Your task to perform on an android device: Search for Mexican restaurants on Maps Image 0: 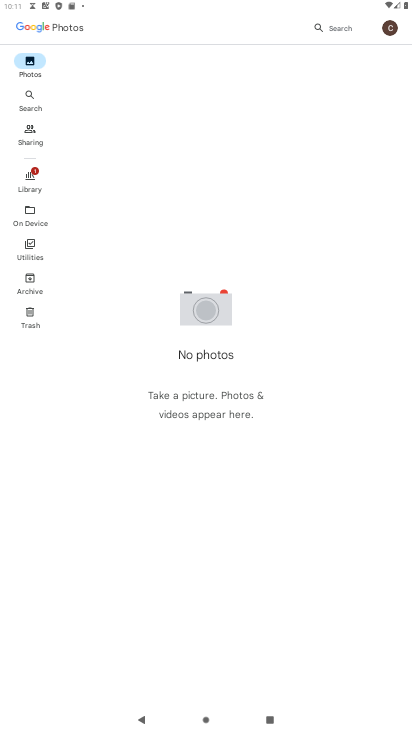
Step 0: press home button
Your task to perform on an android device: Search for Mexican restaurants on Maps Image 1: 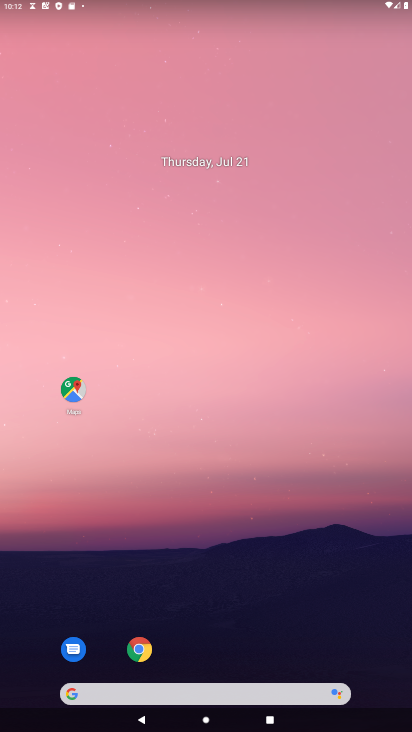
Step 1: click (79, 401)
Your task to perform on an android device: Search for Mexican restaurants on Maps Image 2: 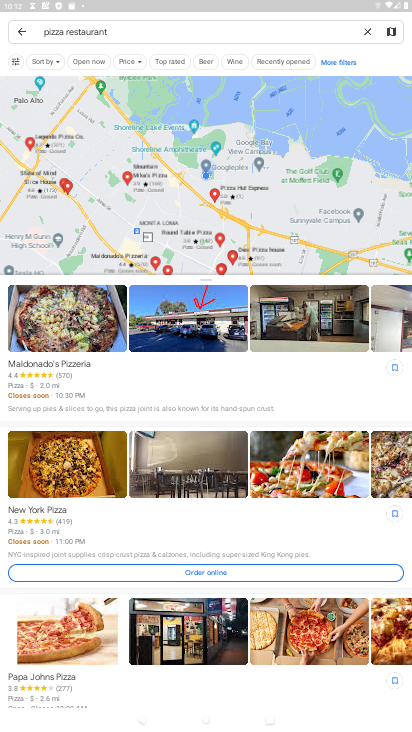
Step 2: click (229, 32)
Your task to perform on an android device: Search for Mexican restaurants on Maps Image 3: 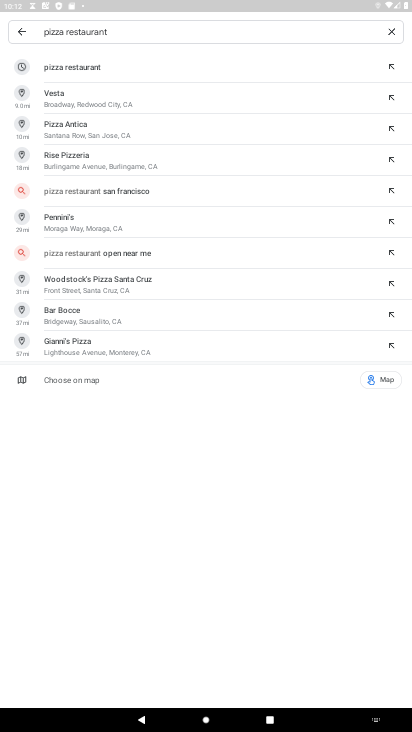
Step 3: click (395, 29)
Your task to perform on an android device: Search for Mexican restaurants on Maps Image 4: 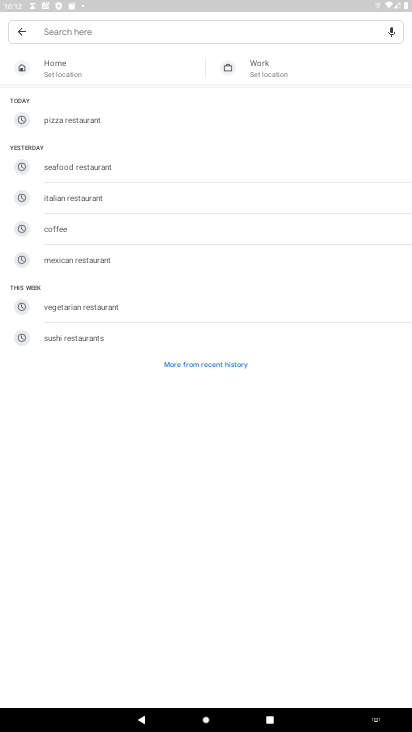
Step 4: click (114, 262)
Your task to perform on an android device: Search for Mexican restaurants on Maps Image 5: 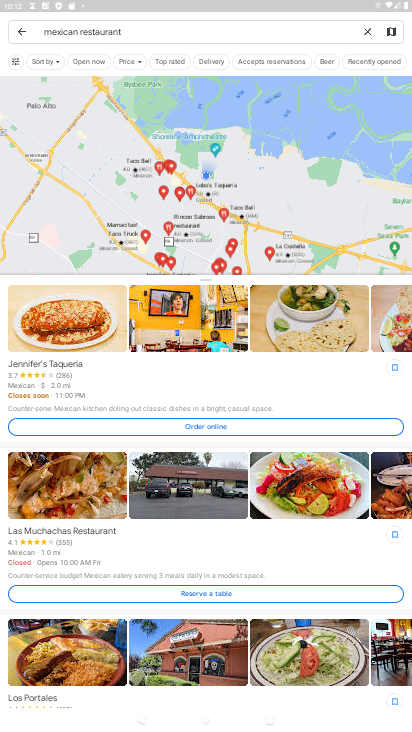
Step 5: task complete